Your task to perform on an android device: Open privacy settings Image 0: 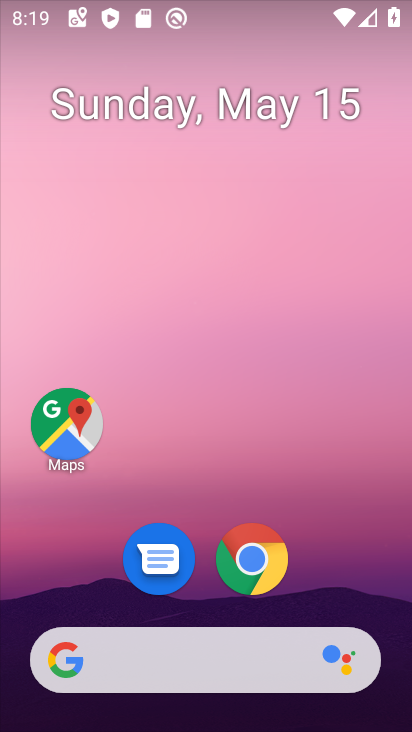
Step 0: click (338, 596)
Your task to perform on an android device: Open privacy settings Image 1: 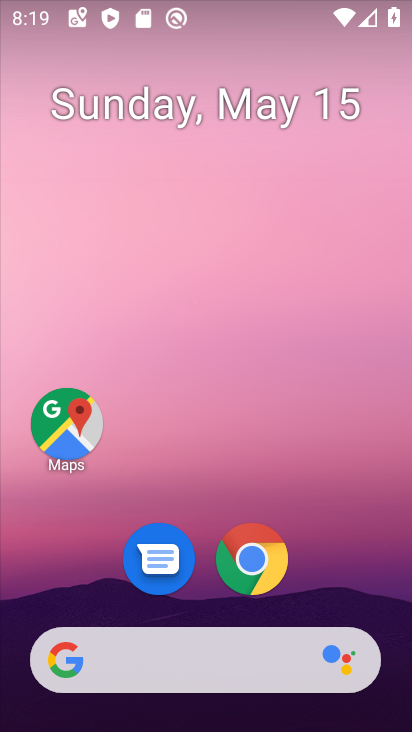
Step 1: drag from (336, 596) to (307, 65)
Your task to perform on an android device: Open privacy settings Image 2: 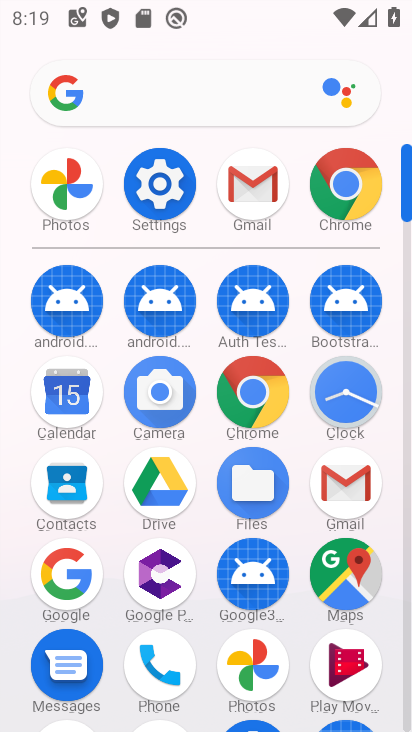
Step 2: click (138, 197)
Your task to perform on an android device: Open privacy settings Image 3: 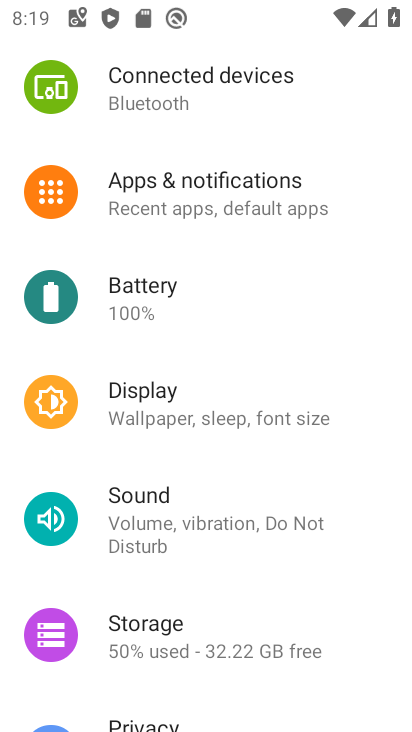
Step 3: drag from (158, 579) to (209, 258)
Your task to perform on an android device: Open privacy settings Image 4: 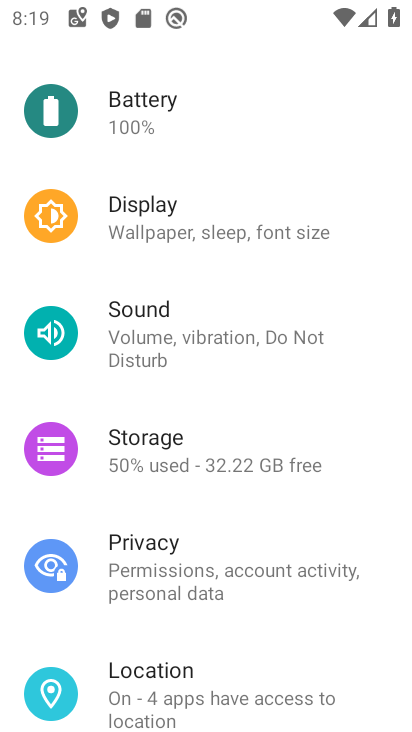
Step 4: click (182, 559)
Your task to perform on an android device: Open privacy settings Image 5: 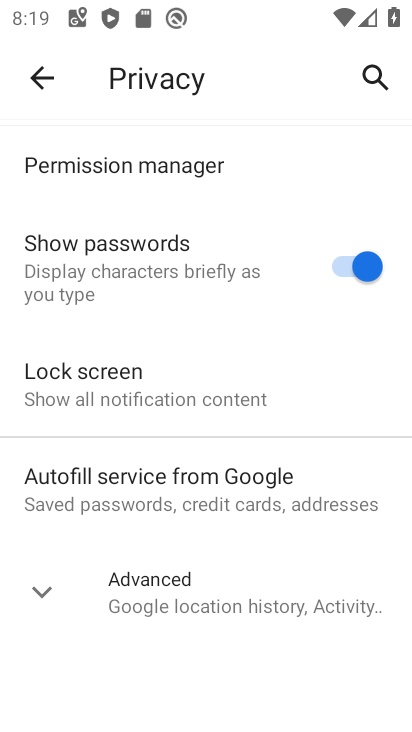
Step 5: task complete